Your task to perform on an android device: stop showing notifications on the lock screen Image 0: 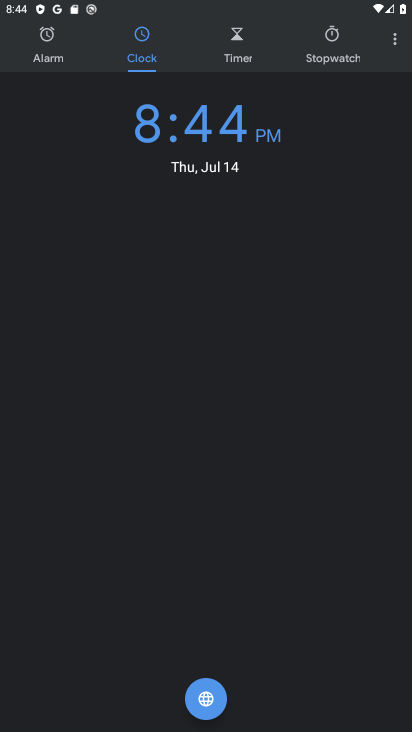
Step 0: press home button
Your task to perform on an android device: stop showing notifications on the lock screen Image 1: 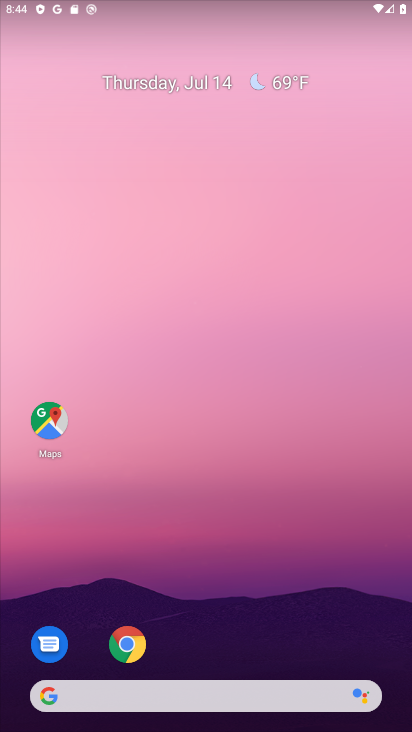
Step 1: drag from (249, 630) to (337, 67)
Your task to perform on an android device: stop showing notifications on the lock screen Image 2: 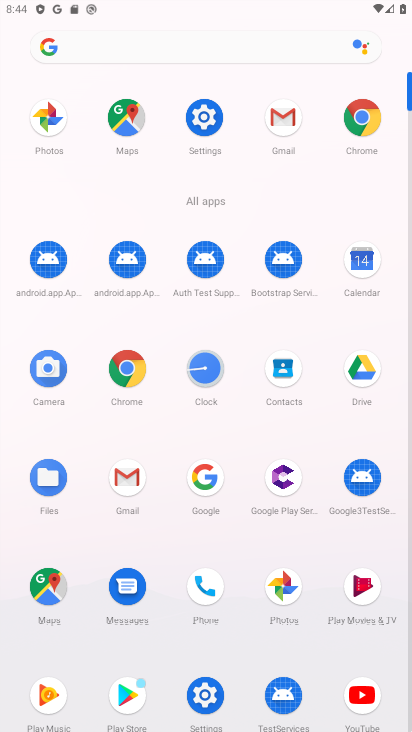
Step 2: click (201, 134)
Your task to perform on an android device: stop showing notifications on the lock screen Image 3: 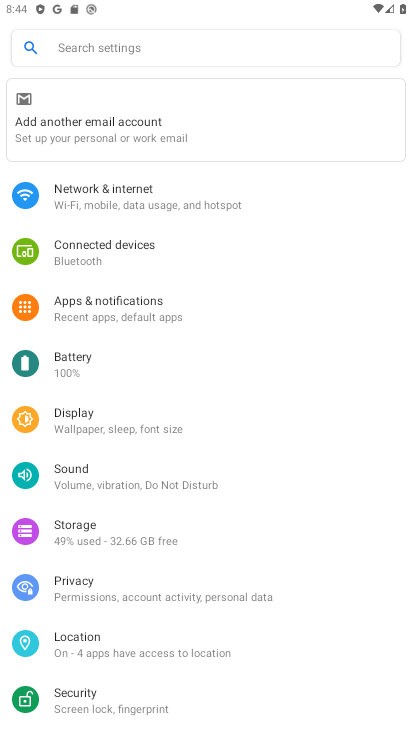
Step 3: click (183, 320)
Your task to perform on an android device: stop showing notifications on the lock screen Image 4: 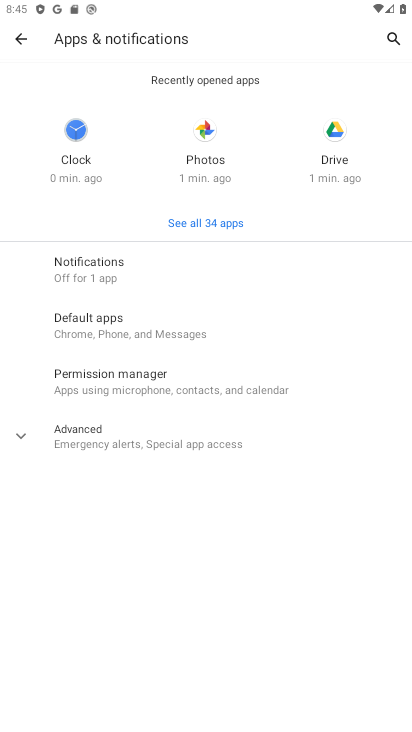
Step 4: click (112, 273)
Your task to perform on an android device: stop showing notifications on the lock screen Image 5: 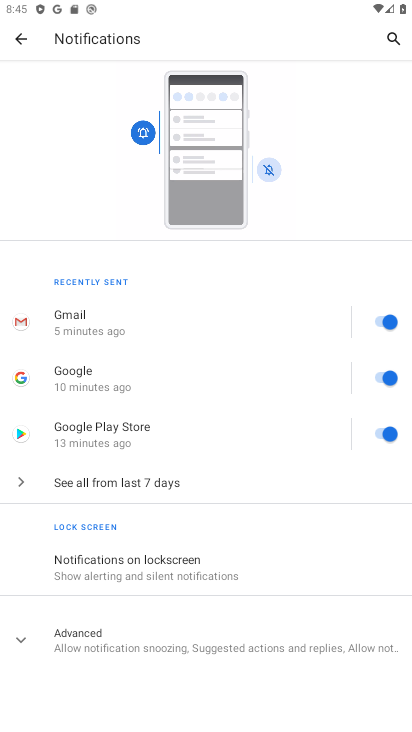
Step 5: click (208, 559)
Your task to perform on an android device: stop showing notifications on the lock screen Image 6: 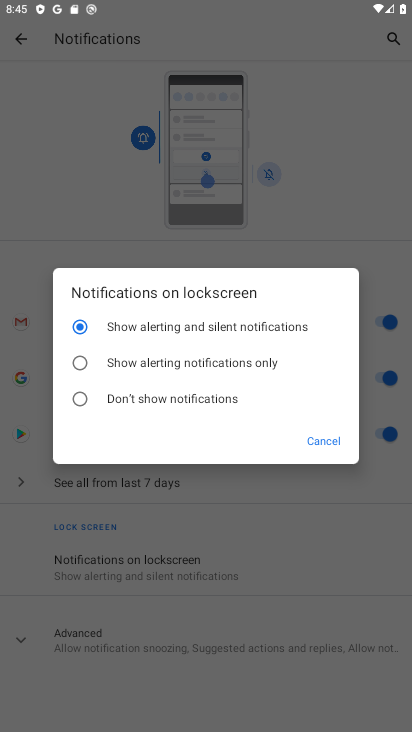
Step 6: click (207, 399)
Your task to perform on an android device: stop showing notifications on the lock screen Image 7: 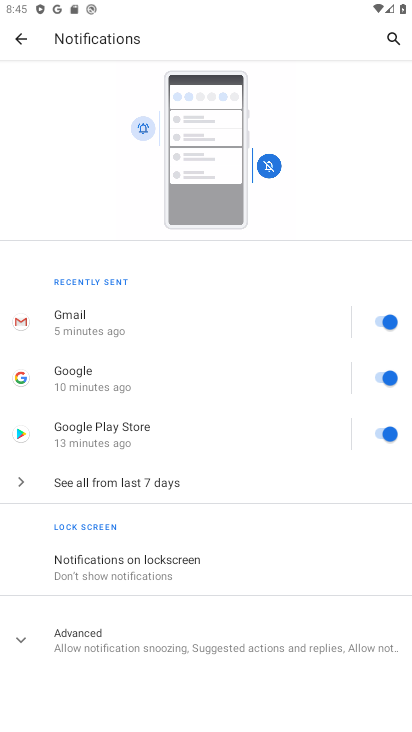
Step 7: task complete